Your task to perform on an android device: find snoozed emails in the gmail app Image 0: 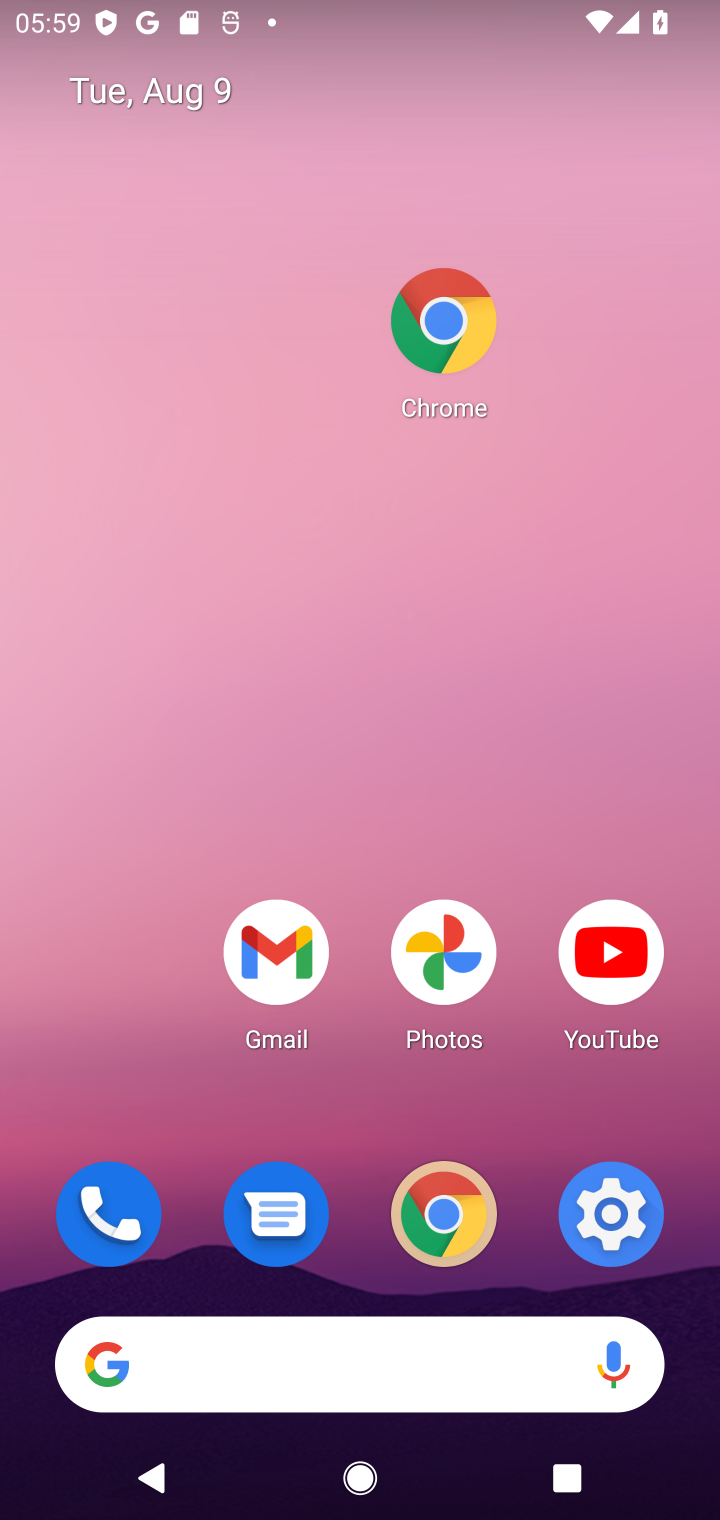
Step 0: drag from (441, 1337) to (399, 349)
Your task to perform on an android device: find snoozed emails in the gmail app Image 1: 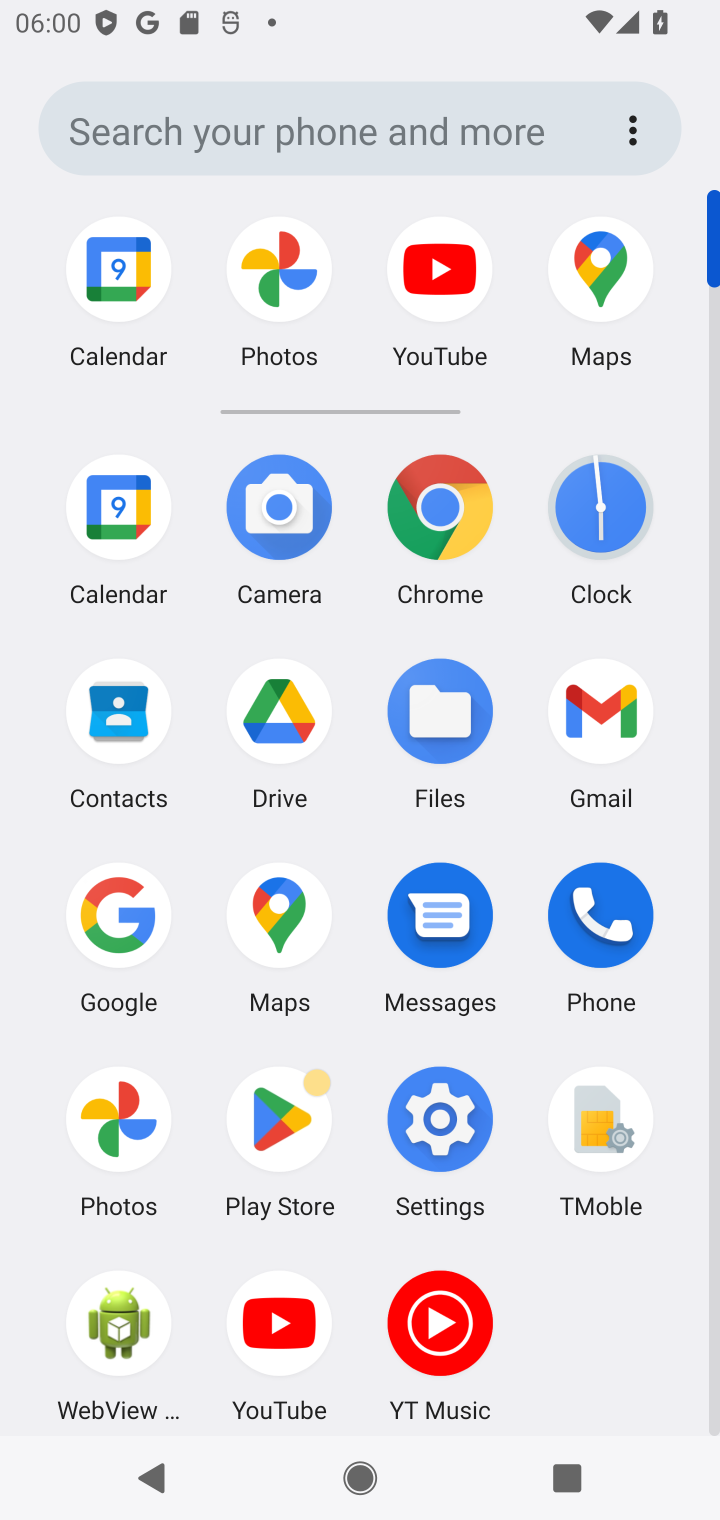
Step 1: click (582, 735)
Your task to perform on an android device: find snoozed emails in the gmail app Image 2: 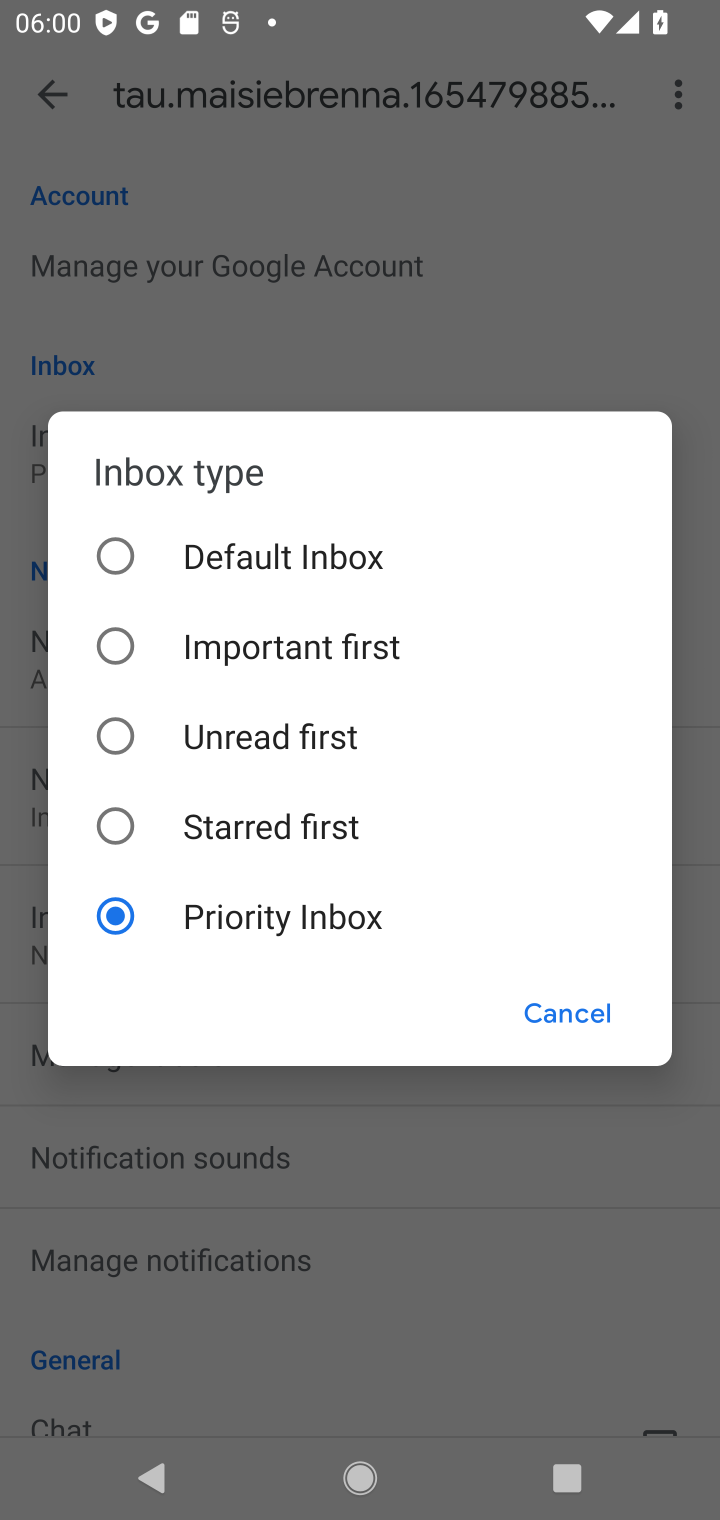
Step 2: click (561, 1014)
Your task to perform on an android device: find snoozed emails in the gmail app Image 3: 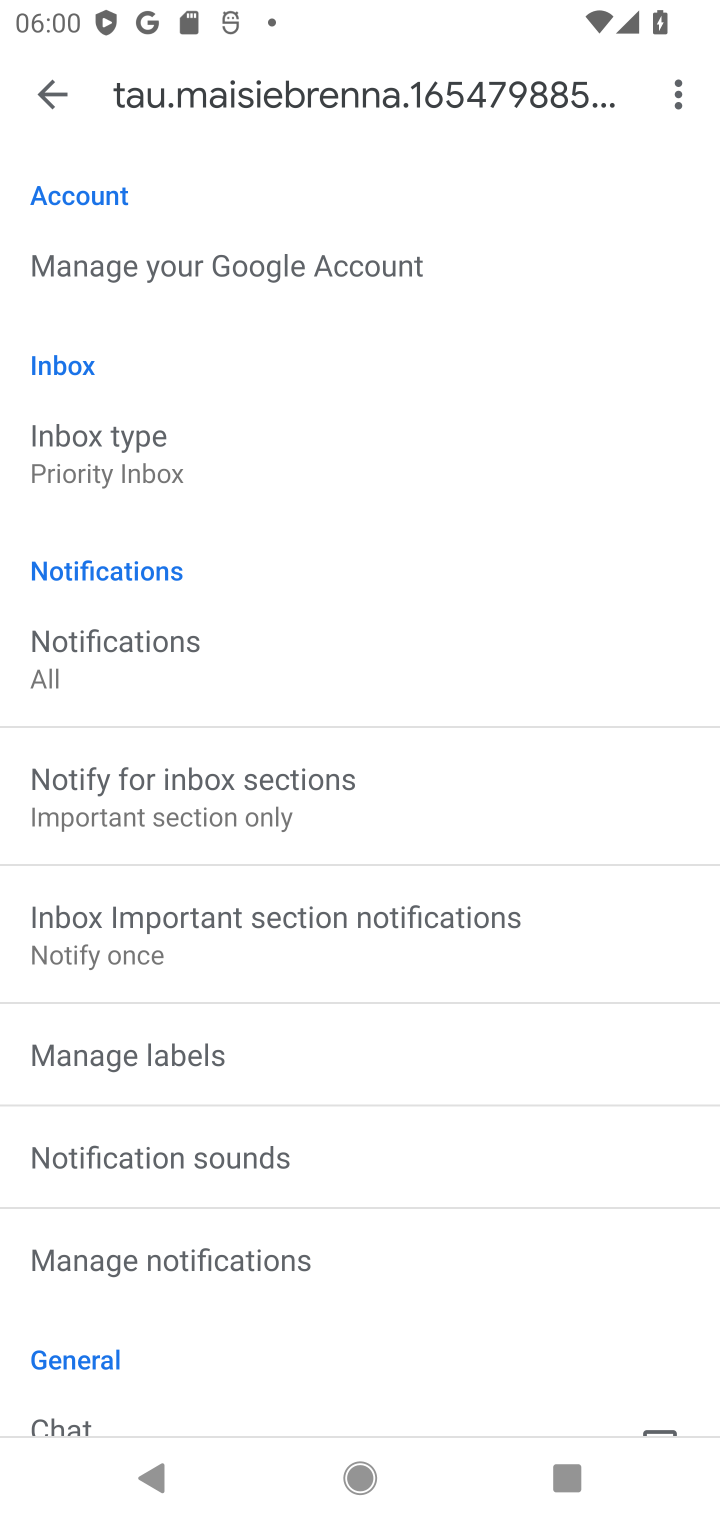
Step 3: click (44, 98)
Your task to perform on an android device: find snoozed emails in the gmail app Image 4: 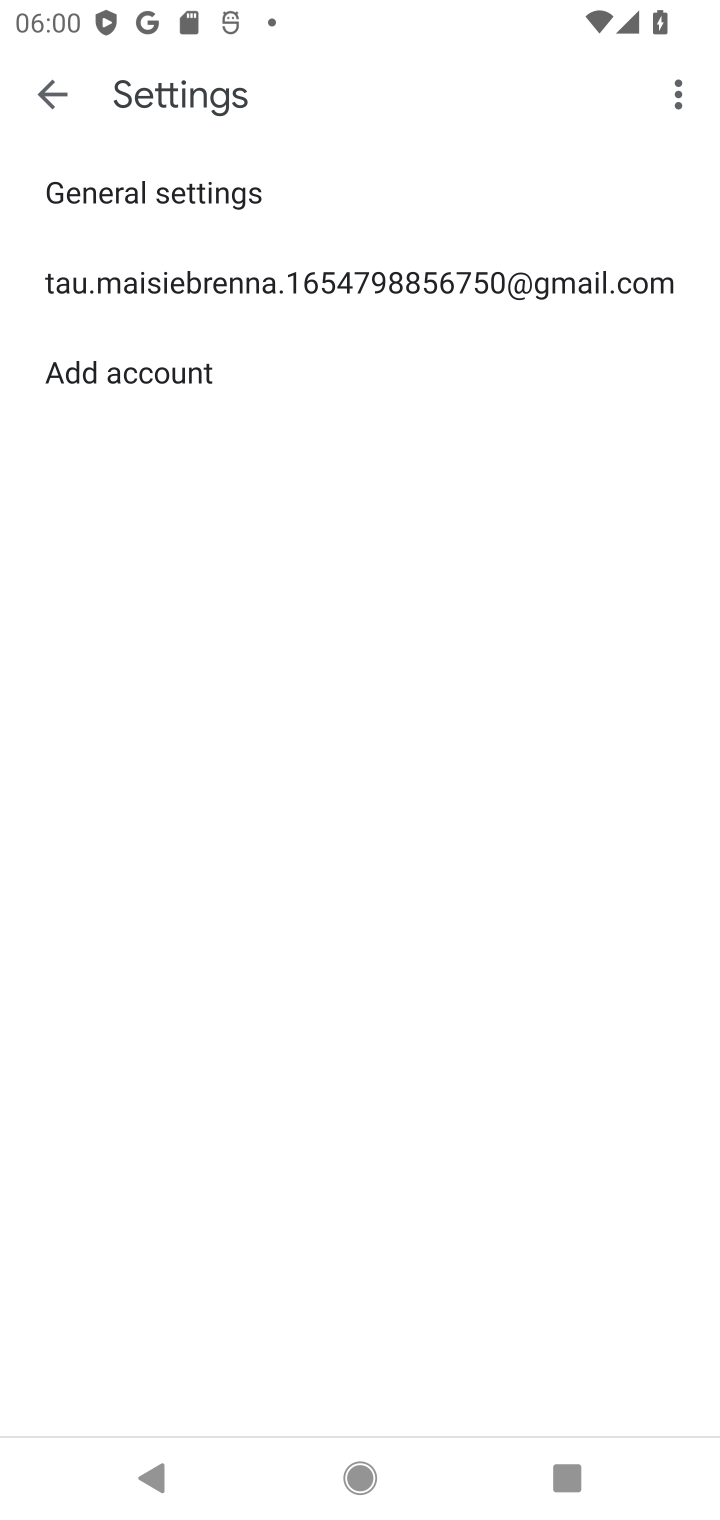
Step 4: click (37, 107)
Your task to perform on an android device: find snoozed emails in the gmail app Image 5: 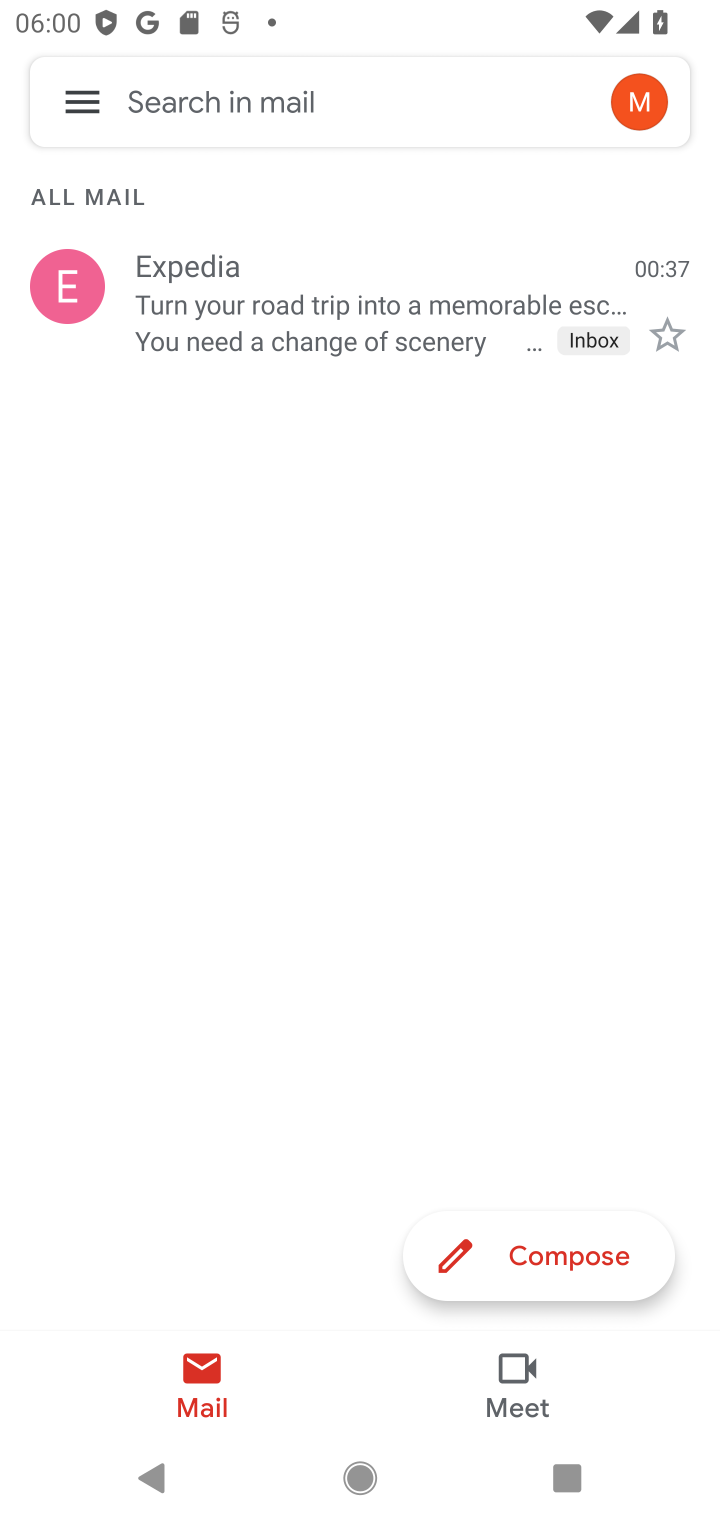
Step 5: click (74, 108)
Your task to perform on an android device: find snoozed emails in the gmail app Image 6: 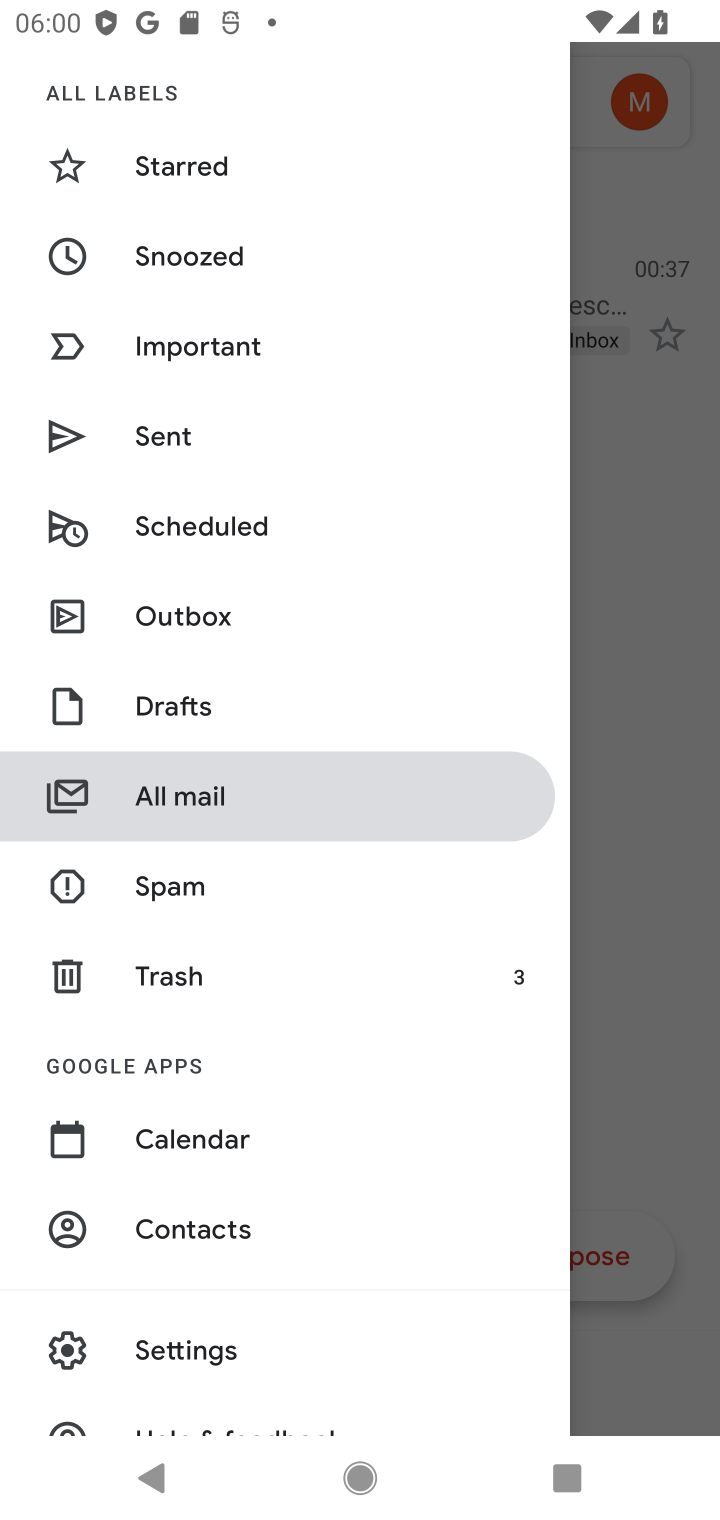
Step 6: click (182, 255)
Your task to perform on an android device: find snoozed emails in the gmail app Image 7: 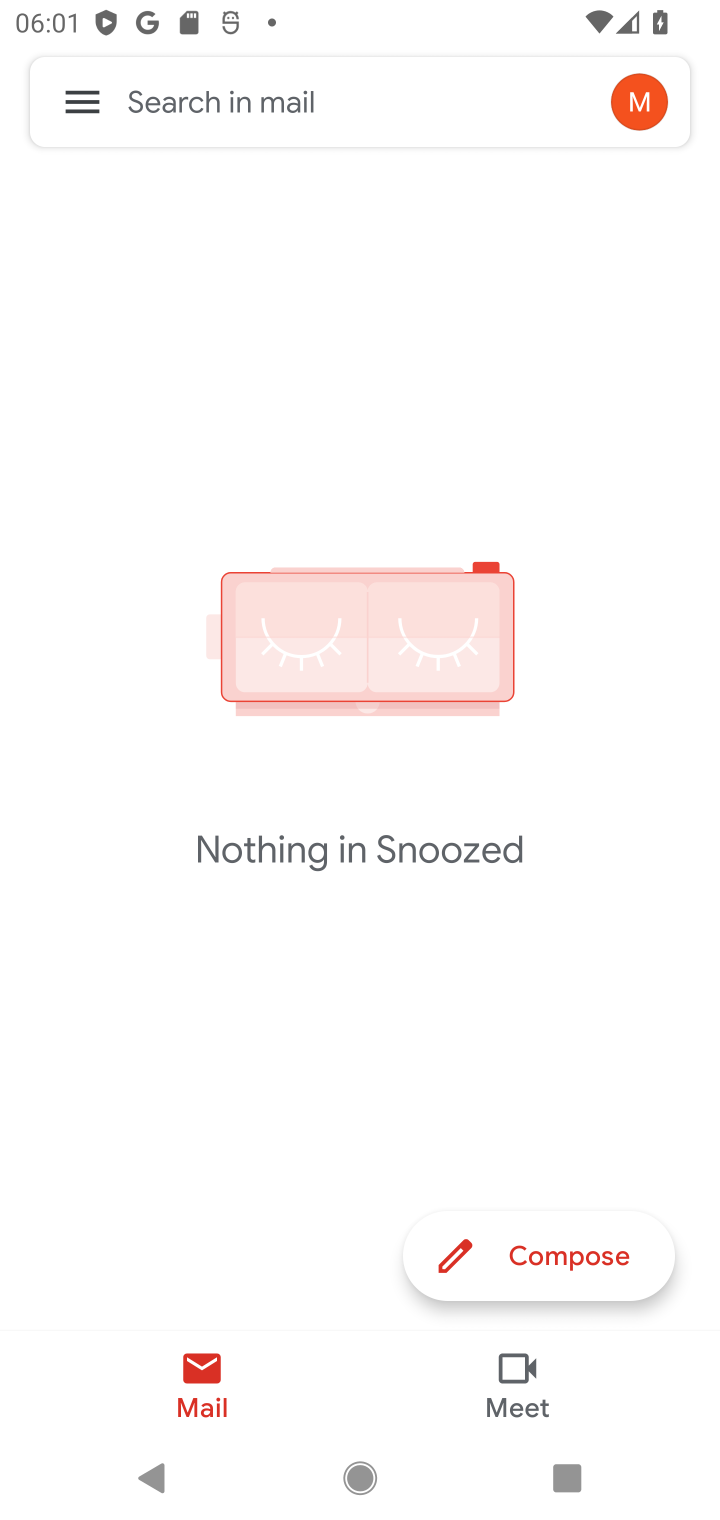
Step 7: task complete